Your task to perform on an android device: turn on the 12-hour format for clock Image 0: 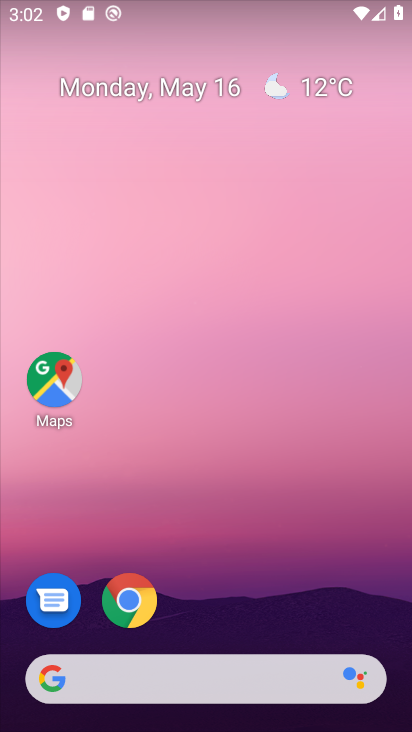
Step 0: drag from (217, 637) to (327, 21)
Your task to perform on an android device: turn on the 12-hour format for clock Image 1: 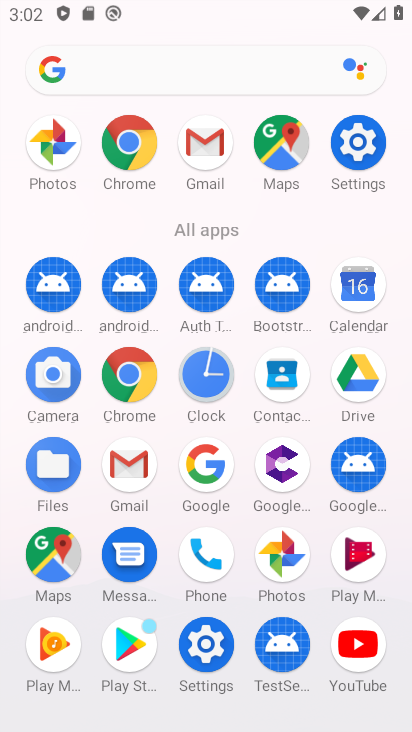
Step 1: click (195, 365)
Your task to perform on an android device: turn on the 12-hour format for clock Image 2: 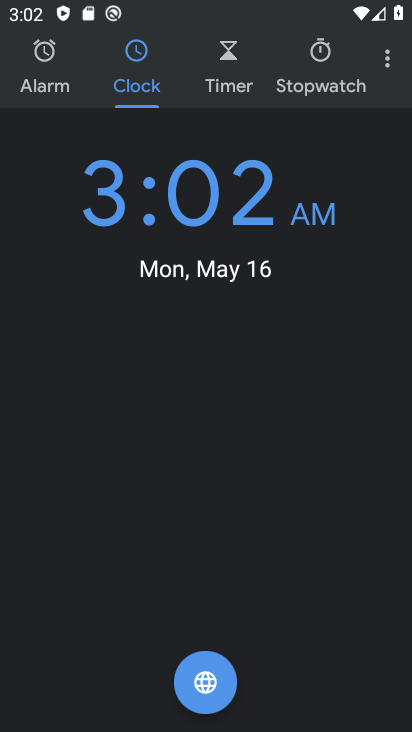
Step 2: click (382, 67)
Your task to perform on an android device: turn on the 12-hour format for clock Image 3: 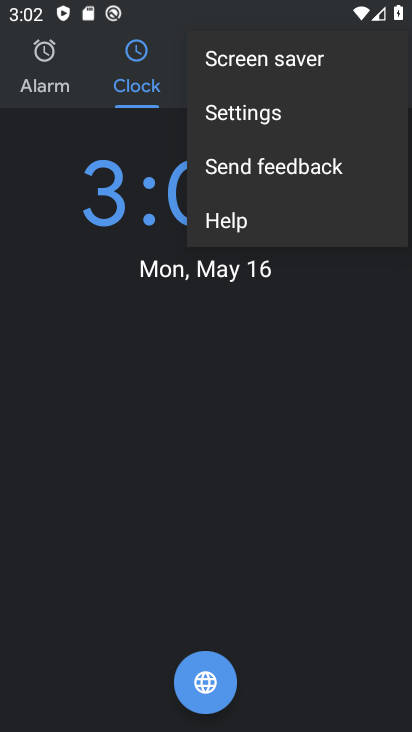
Step 3: click (230, 118)
Your task to perform on an android device: turn on the 12-hour format for clock Image 4: 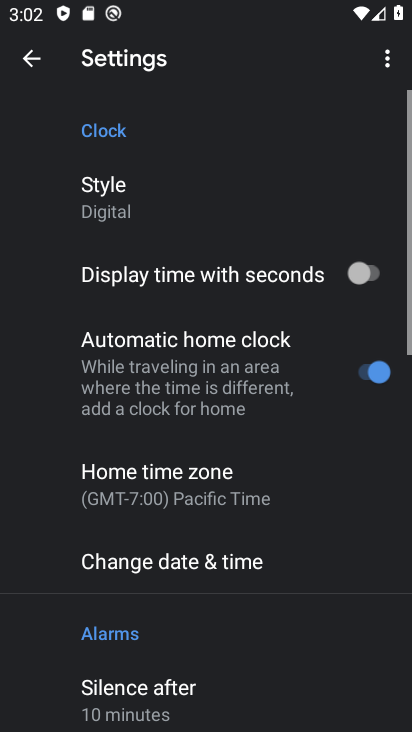
Step 4: click (197, 563)
Your task to perform on an android device: turn on the 12-hour format for clock Image 5: 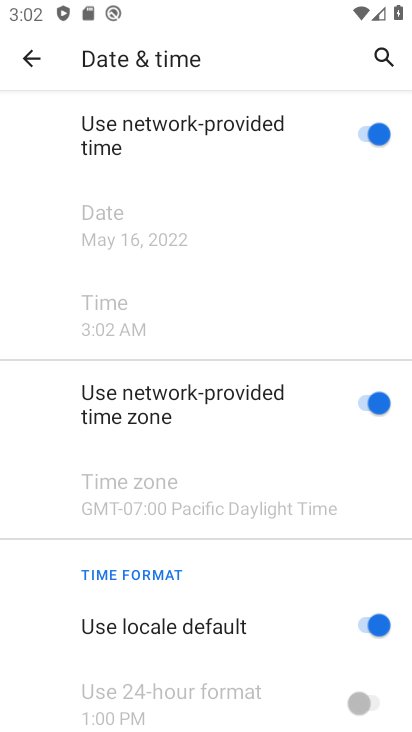
Step 5: task complete